Your task to perform on an android device: turn pop-ups off in chrome Image 0: 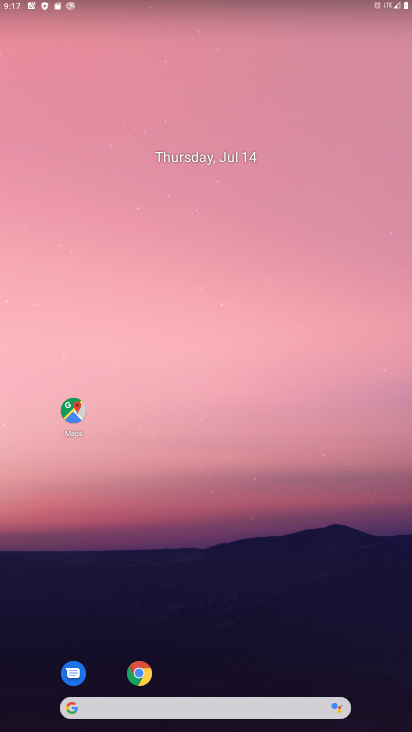
Step 0: click (140, 674)
Your task to perform on an android device: turn pop-ups off in chrome Image 1: 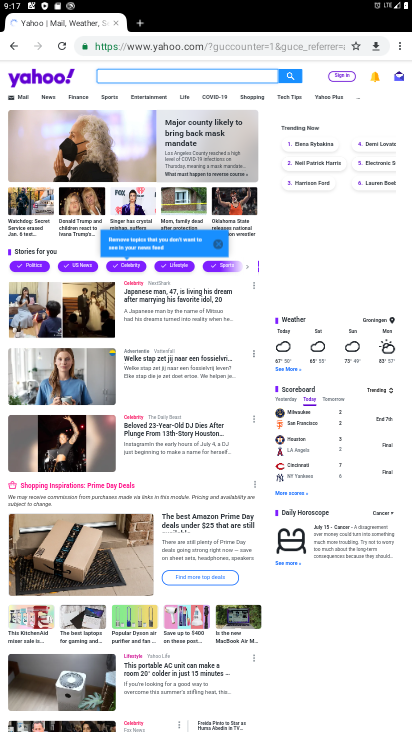
Step 1: click (400, 44)
Your task to perform on an android device: turn pop-ups off in chrome Image 2: 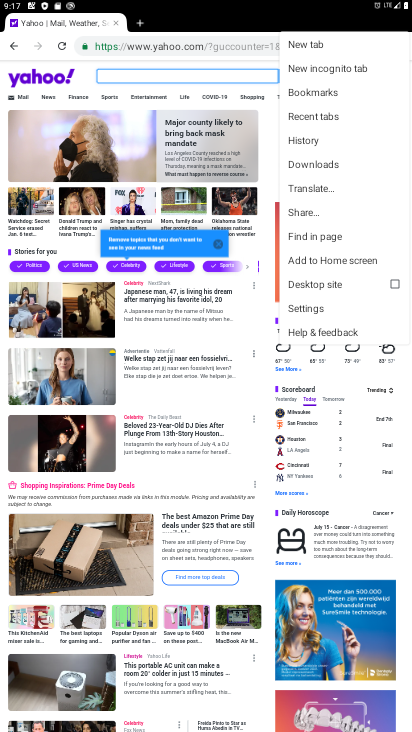
Step 2: click (308, 309)
Your task to perform on an android device: turn pop-ups off in chrome Image 3: 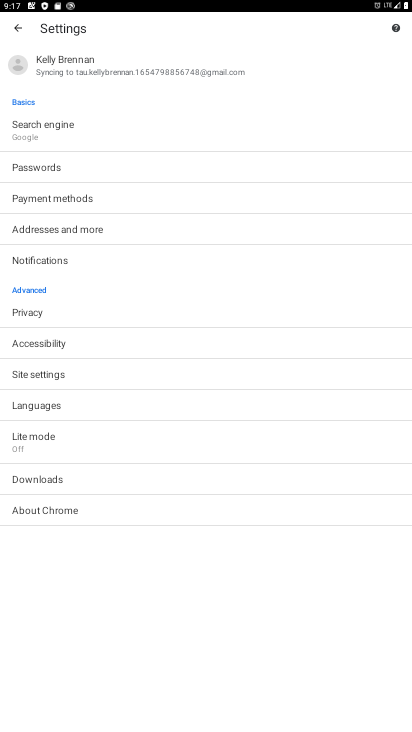
Step 3: click (31, 372)
Your task to perform on an android device: turn pop-ups off in chrome Image 4: 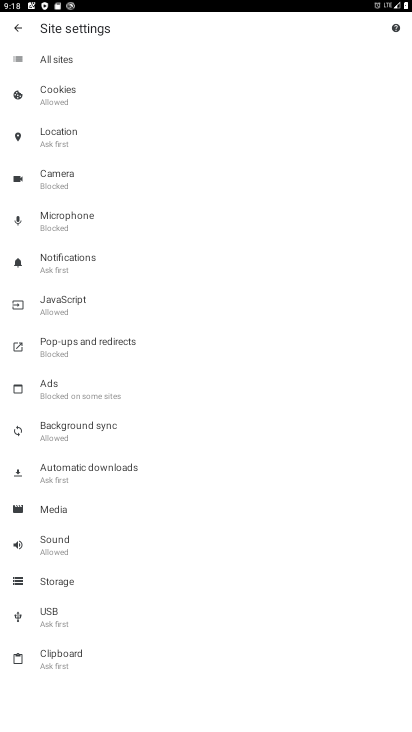
Step 4: click (64, 340)
Your task to perform on an android device: turn pop-ups off in chrome Image 5: 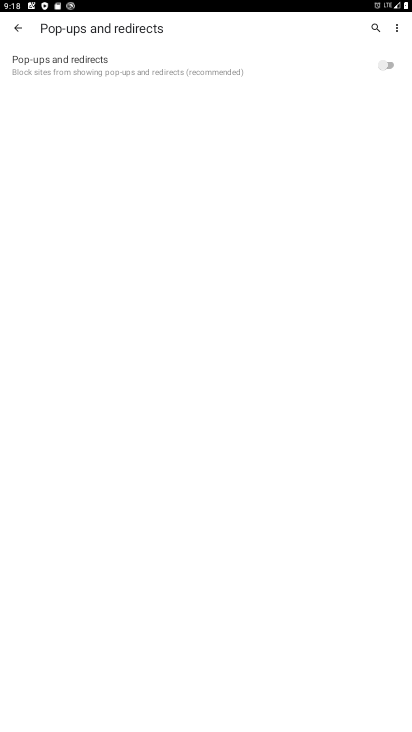
Step 5: task complete